Your task to perform on an android device: check battery use Image 0: 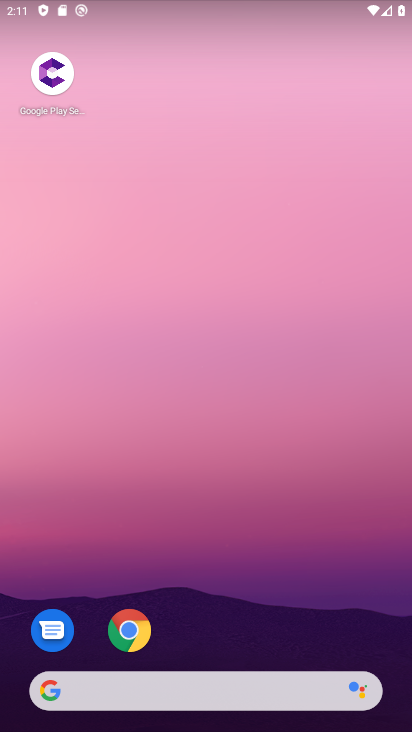
Step 0: drag from (240, 568) to (285, 12)
Your task to perform on an android device: check battery use Image 1: 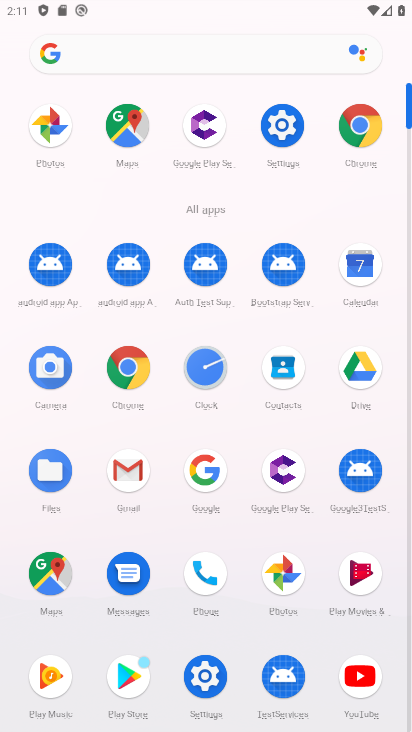
Step 1: click (280, 109)
Your task to perform on an android device: check battery use Image 2: 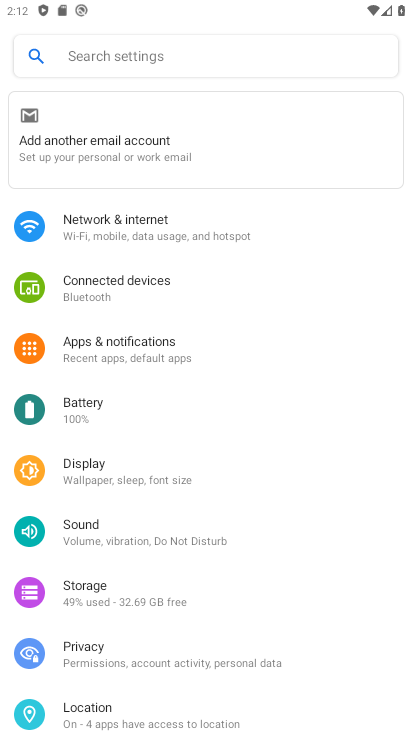
Step 2: click (100, 394)
Your task to perform on an android device: check battery use Image 3: 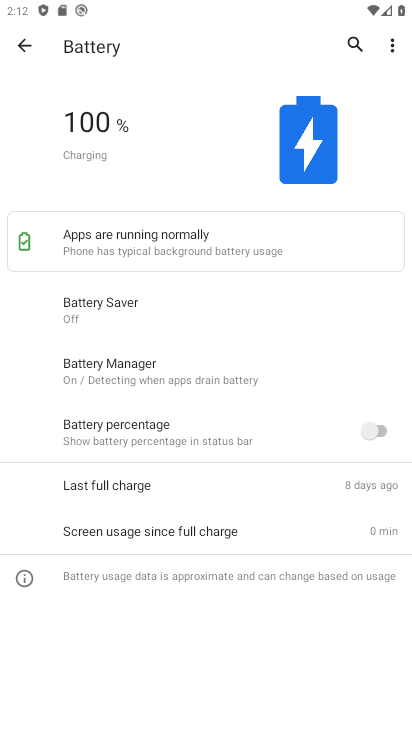
Step 3: task complete